Your task to perform on an android device: Search for Mexican restaurants on Maps Image 0: 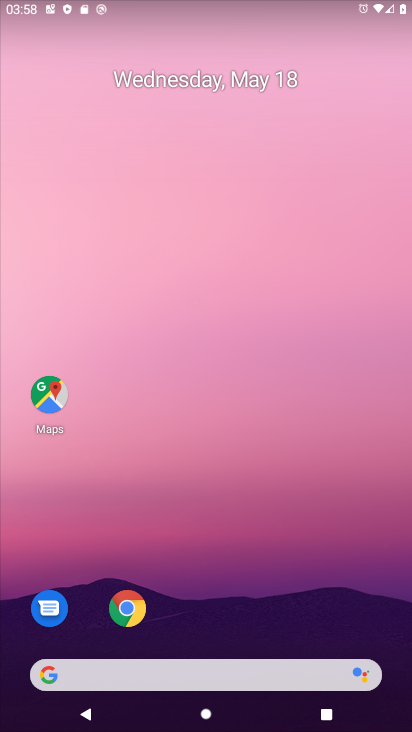
Step 0: click (53, 382)
Your task to perform on an android device: Search for Mexican restaurants on Maps Image 1: 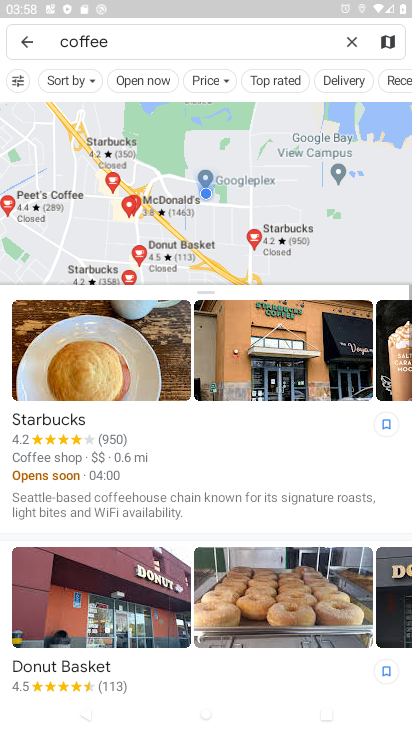
Step 1: click (354, 35)
Your task to perform on an android device: Search for Mexican restaurants on Maps Image 2: 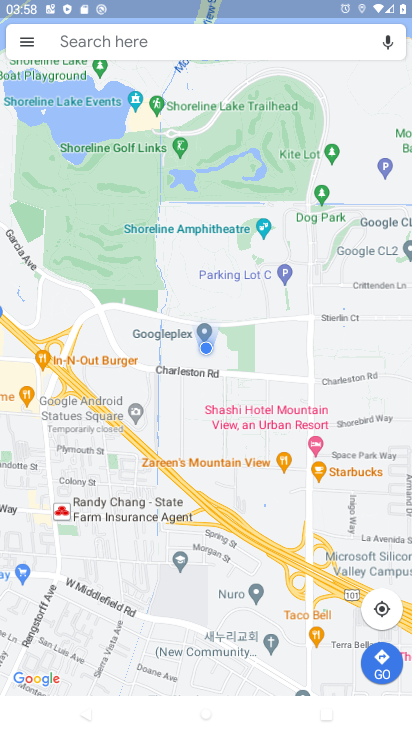
Step 2: type "mexican restaurant"
Your task to perform on an android device: Search for Mexican restaurants on Maps Image 3: 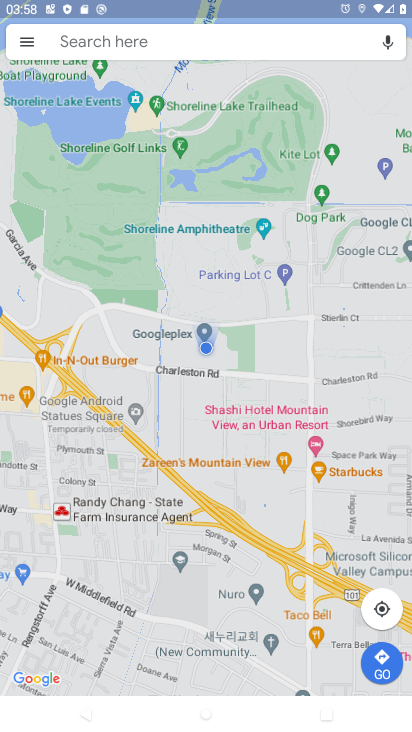
Step 3: click (169, 46)
Your task to perform on an android device: Search for Mexican restaurants on Maps Image 4: 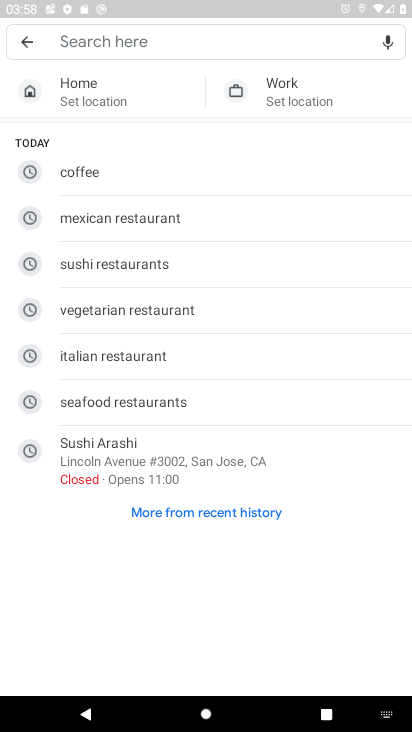
Step 4: click (155, 214)
Your task to perform on an android device: Search for Mexican restaurants on Maps Image 5: 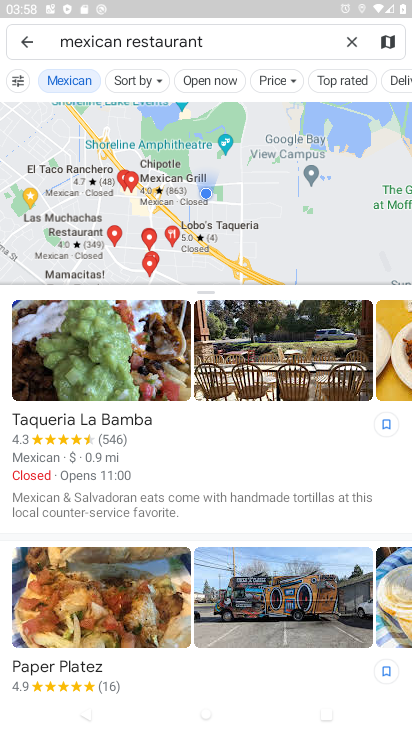
Step 5: task complete